Your task to perform on an android device: delete a single message in the gmail app Image 0: 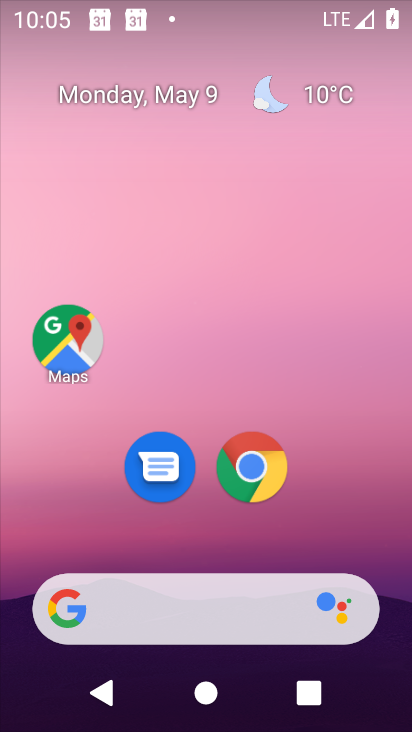
Step 0: drag from (378, 559) to (324, 21)
Your task to perform on an android device: delete a single message in the gmail app Image 1: 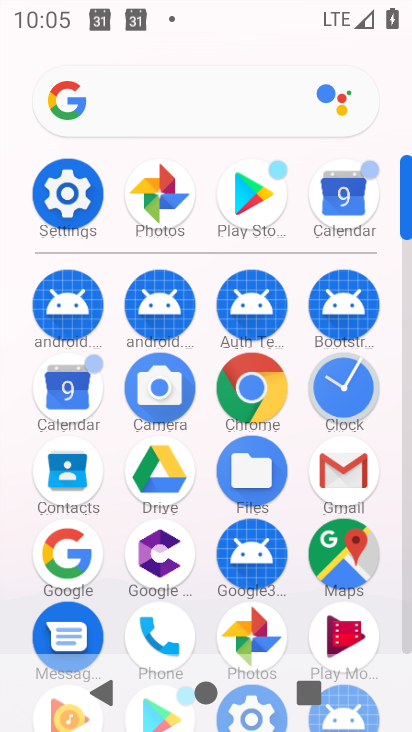
Step 1: click (346, 472)
Your task to perform on an android device: delete a single message in the gmail app Image 2: 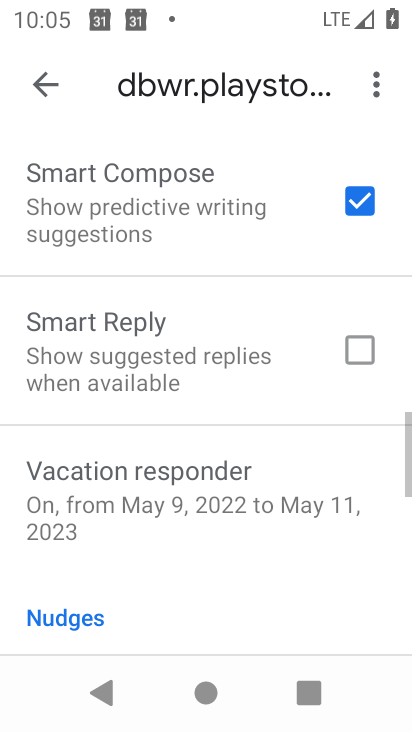
Step 2: click (33, 87)
Your task to perform on an android device: delete a single message in the gmail app Image 3: 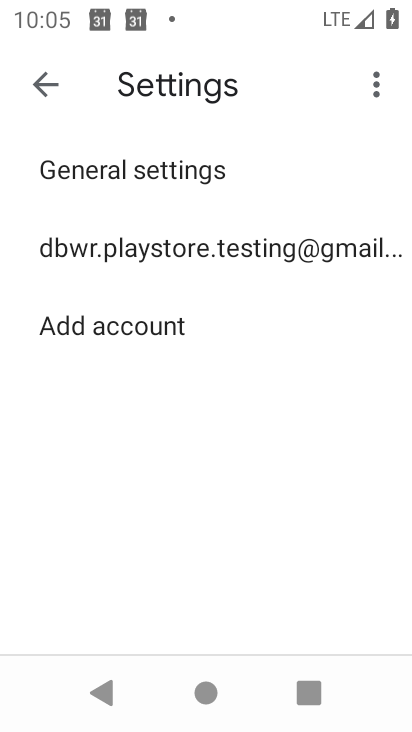
Step 3: click (39, 86)
Your task to perform on an android device: delete a single message in the gmail app Image 4: 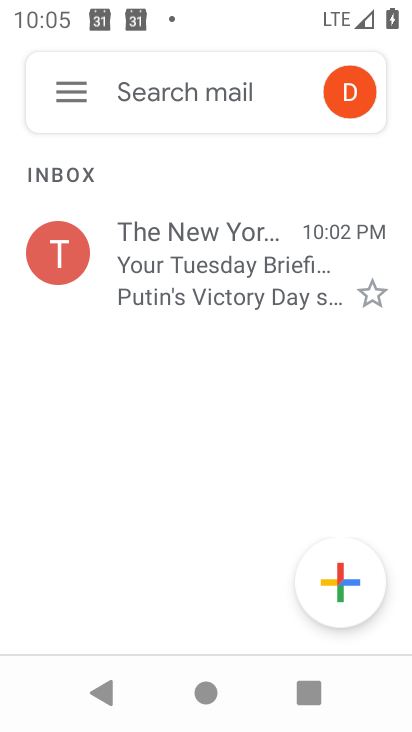
Step 4: click (169, 284)
Your task to perform on an android device: delete a single message in the gmail app Image 5: 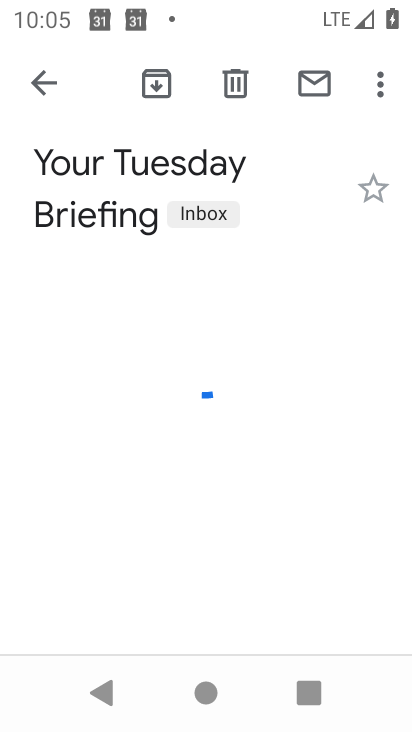
Step 5: click (246, 88)
Your task to perform on an android device: delete a single message in the gmail app Image 6: 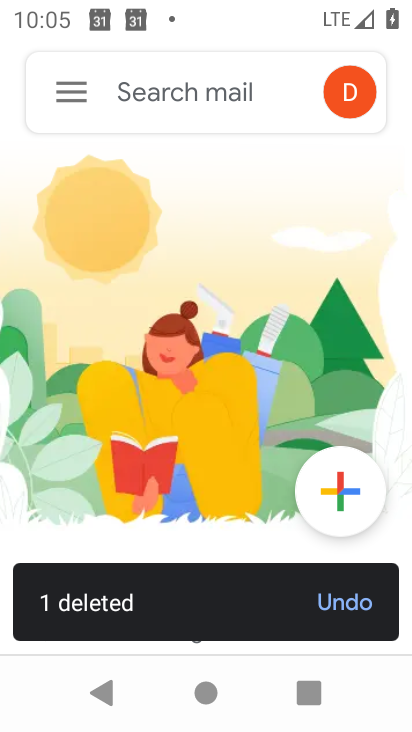
Step 6: task complete